Your task to perform on an android device: Go to settings Image 0: 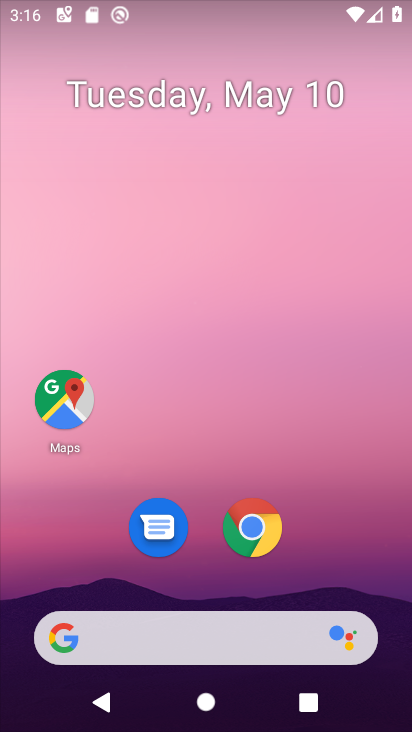
Step 0: drag from (391, 642) to (372, 346)
Your task to perform on an android device: Go to settings Image 1: 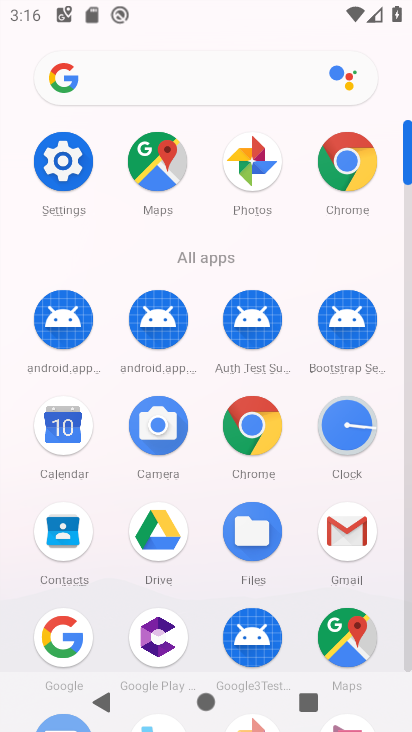
Step 1: click (74, 166)
Your task to perform on an android device: Go to settings Image 2: 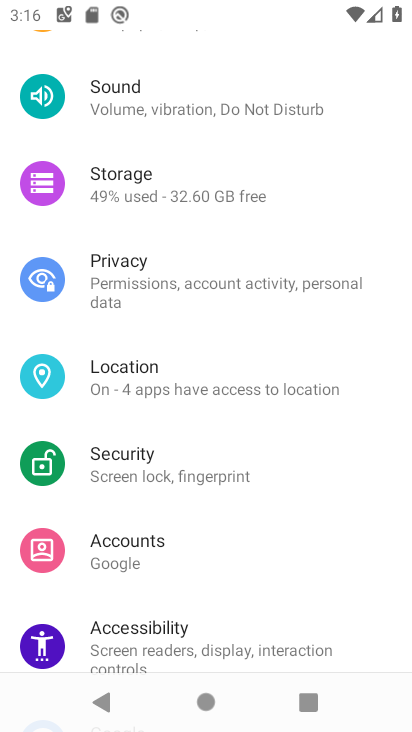
Step 2: task complete